Your task to perform on an android device: toggle sleep mode Image 0: 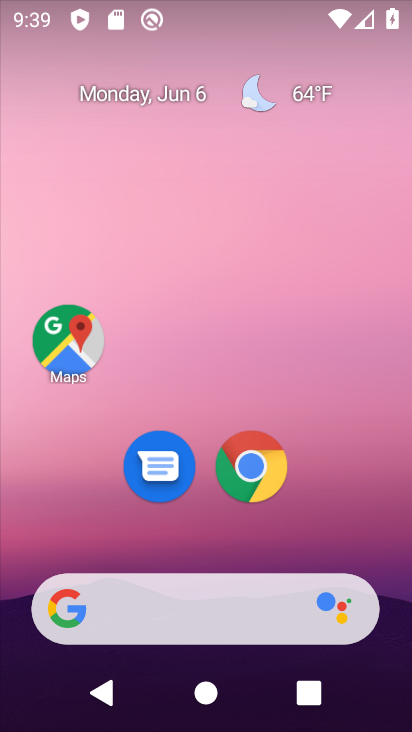
Step 0: click (180, 168)
Your task to perform on an android device: toggle sleep mode Image 1: 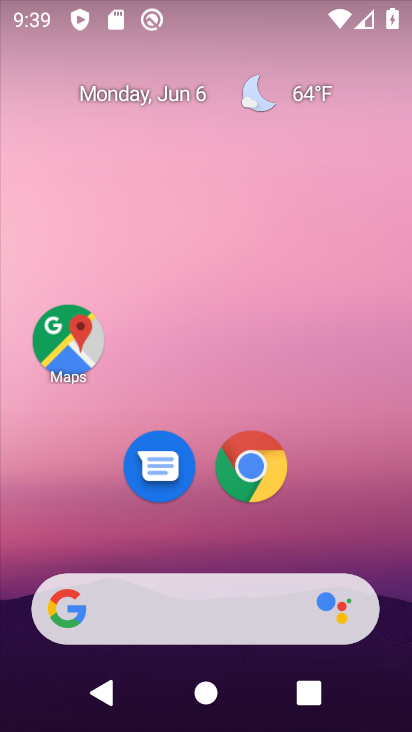
Step 1: drag from (228, 447) to (187, 199)
Your task to perform on an android device: toggle sleep mode Image 2: 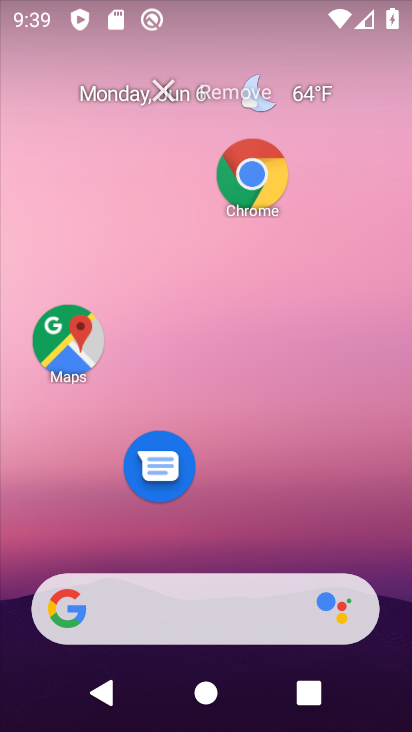
Step 2: click (185, 281)
Your task to perform on an android device: toggle sleep mode Image 3: 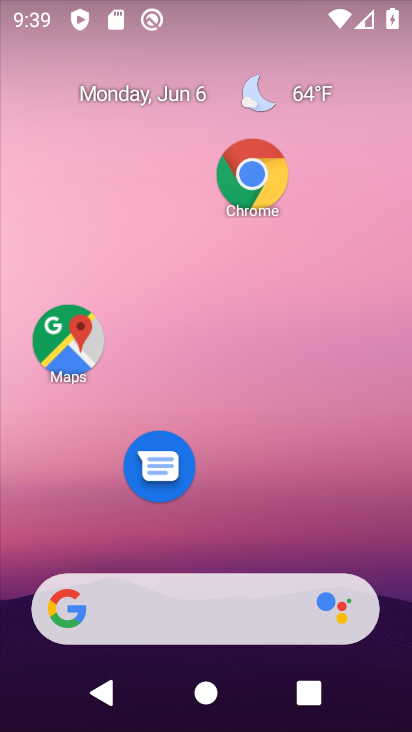
Step 3: drag from (276, 664) to (204, 21)
Your task to perform on an android device: toggle sleep mode Image 4: 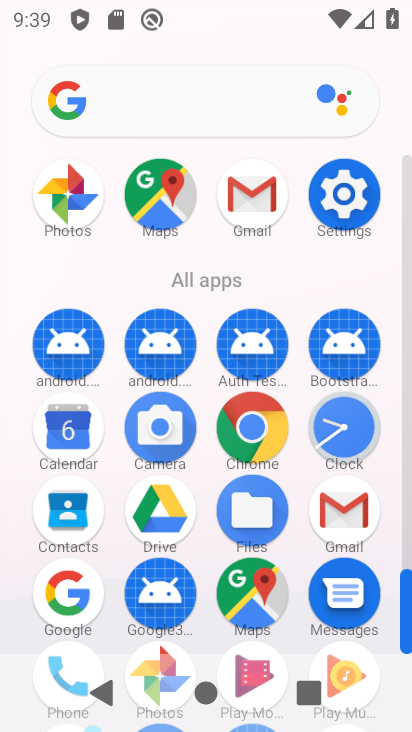
Step 4: drag from (227, 585) to (191, 262)
Your task to perform on an android device: toggle sleep mode Image 5: 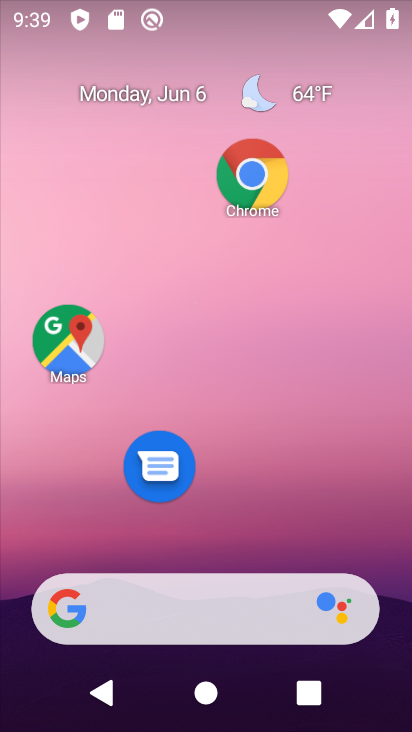
Step 5: click (334, 202)
Your task to perform on an android device: toggle sleep mode Image 6: 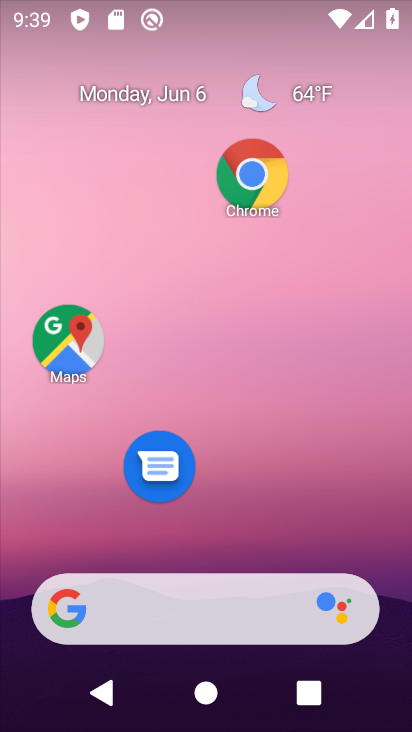
Step 6: click (284, 3)
Your task to perform on an android device: toggle sleep mode Image 7: 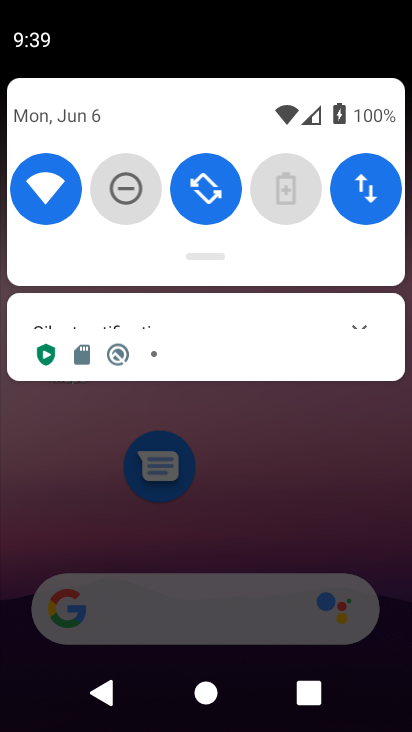
Step 7: click (222, 123)
Your task to perform on an android device: toggle sleep mode Image 8: 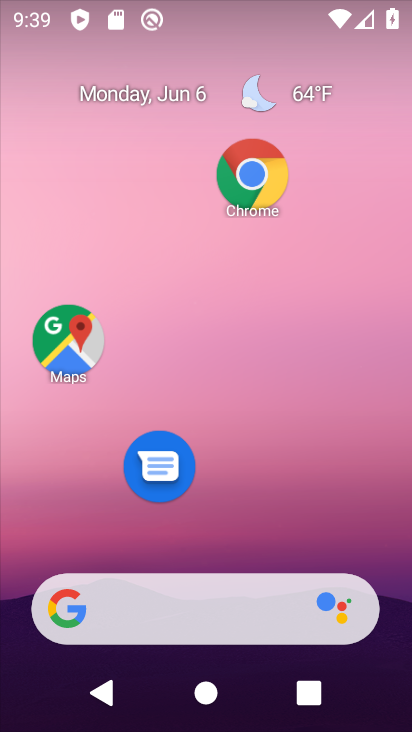
Step 8: drag from (242, 555) to (165, 46)
Your task to perform on an android device: toggle sleep mode Image 9: 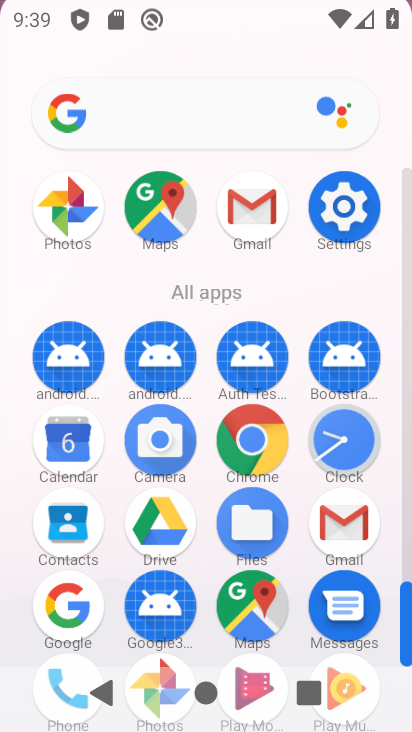
Step 9: drag from (177, 176) to (185, 34)
Your task to perform on an android device: toggle sleep mode Image 10: 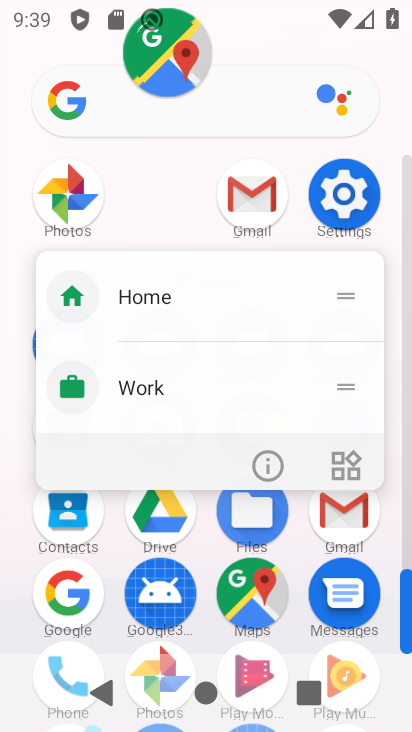
Step 10: drag from (221, 272) to (147, 48)
Your task to perform on an android device: toggle sleep mode Image 11: 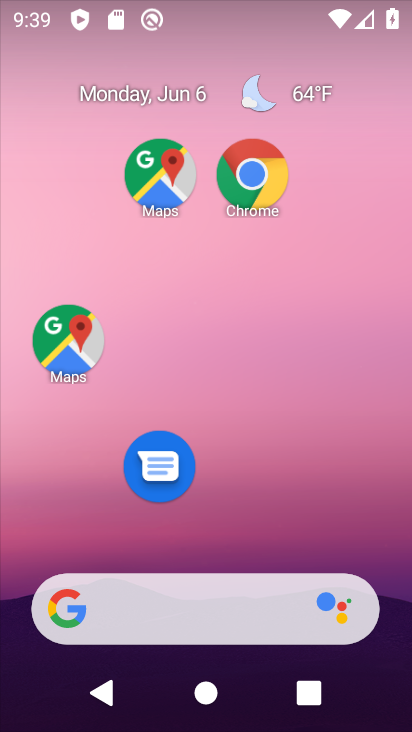
Step 11: click (317, 194)
Your task to perform on an android device: toggle sleep mode Image 12: 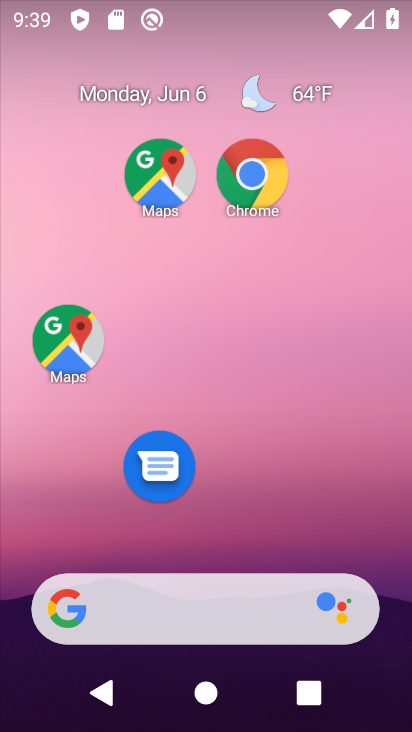
Step 12: drag from (284, 650) to (158, 148)
Your task to perform on an android device: toggle sleep mode Image 13: 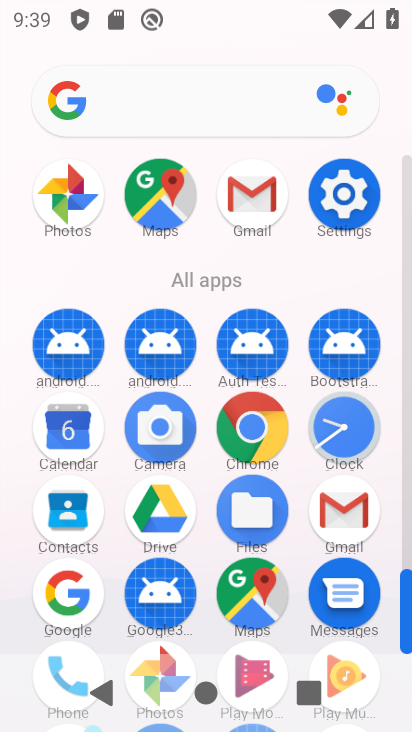
Step 13: click (334, 210)
Your task to perform on an android device: toggle sleep mode Image 14: 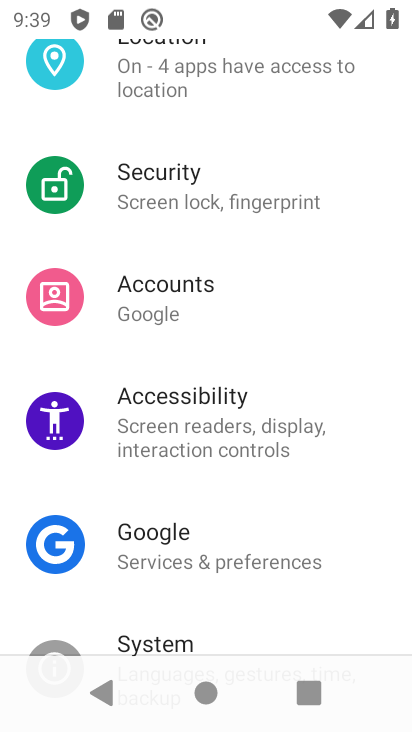
Step 14: drag from (148, 145) to (180, 264)
Your task to perform on an android device: toggle sleep mode Image 15: 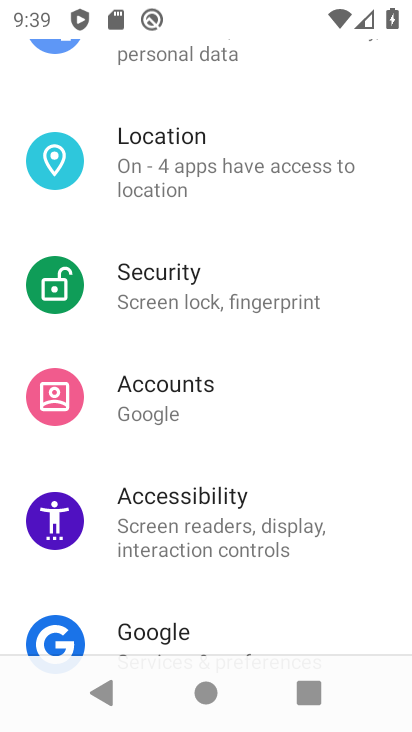
Step 15: drag from (187, 92) to (73, 289)
Your task to perform on an android device: toggle sleep mode Image 16: 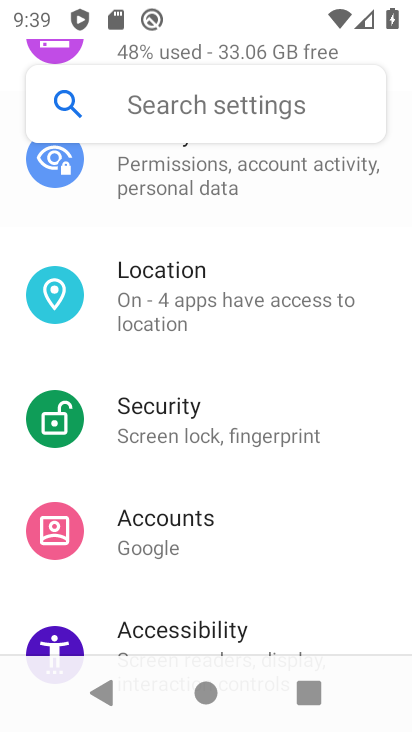
Step 16: drag from (147, 205) to (160, 423)
Your task to perform on an android device: toggle sleep mode Image 17: 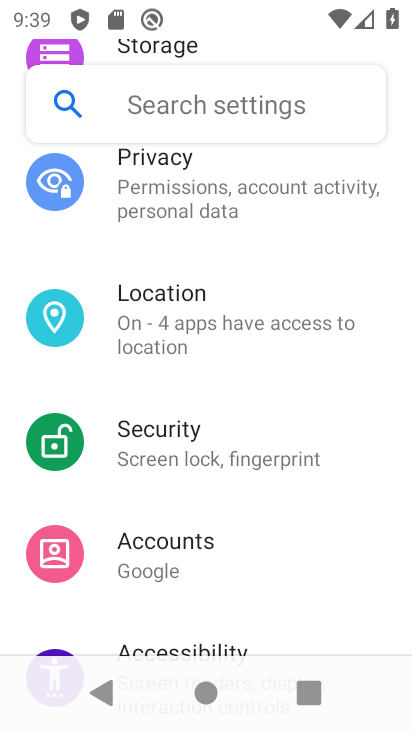
Step 17: drag from (245, 410) to (257, 559)
Your task to perform on an android device: toggle sleep mode Image 18: 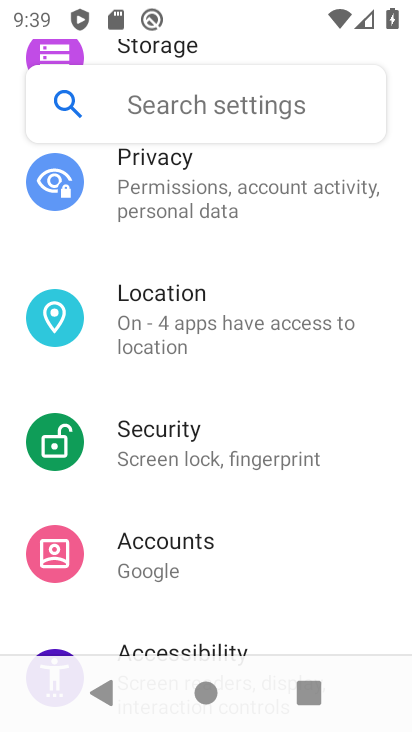
Step 18: drag from (184, 204) to (248, 516)
Your task to perform on an android device: toggle sleep mode Image 19: 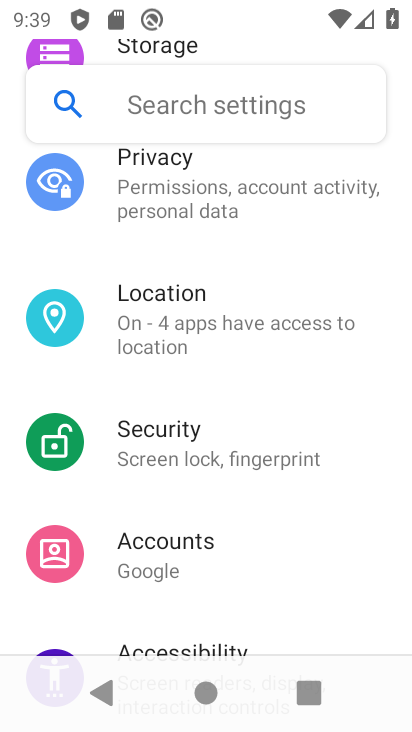
Step 19: drag from (220, 360) to (255, 619)
Your task to perform on an android device: toggle sleep mode Image 20: 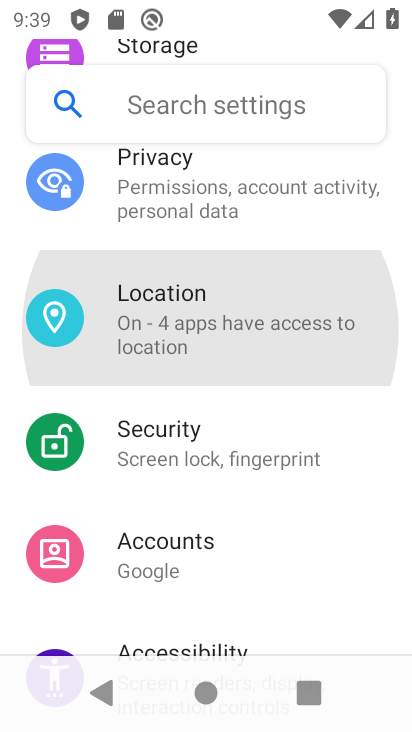
Step 20: drag from (125, 253) to (207, 683)
Your task to perform on an android device: toggle sleep mode Image 21: 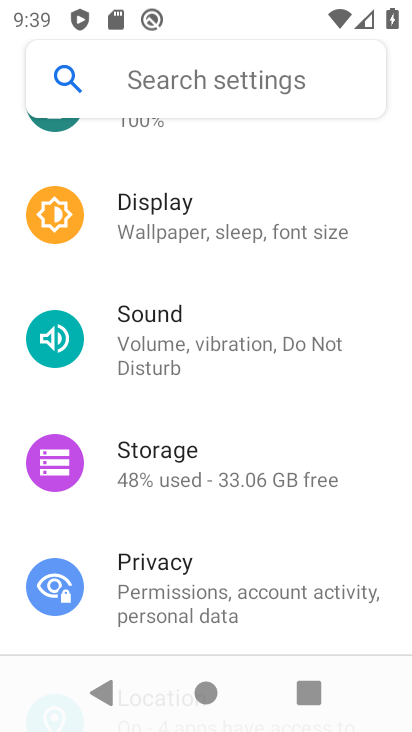
Step 21: drag from (164, 254) to (221, 572)
Your task to perform on an android device: toggle sleep mode Image 22: 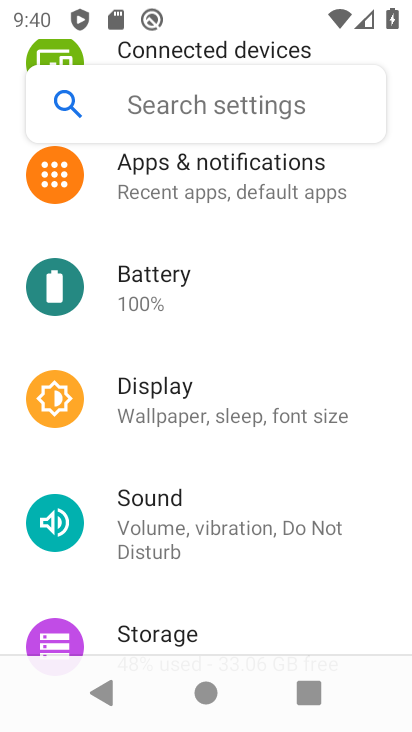
Step 22: click (161, 408)
Your task to perform on an android device: toggle sleep mode Image 23: 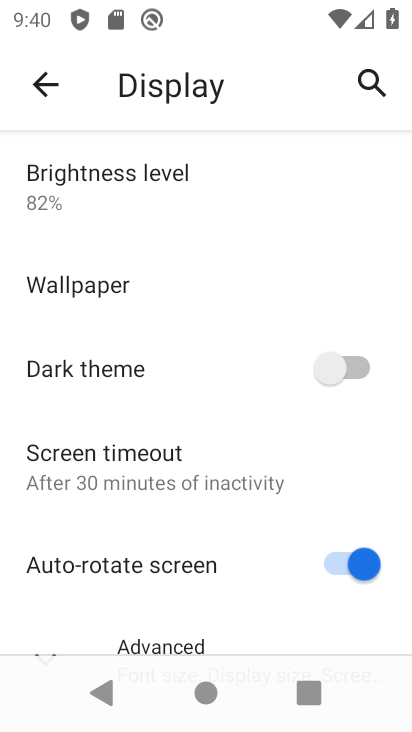
Step 23: task complete